Your task to perform on an android device: Go to Wikipedia Image 0: 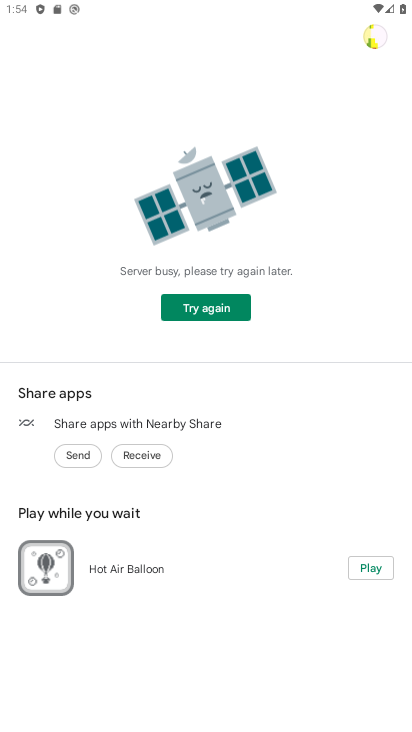
Step 0: press home button
Your task to perform on an android device: Go to Wikipedia Image 1: 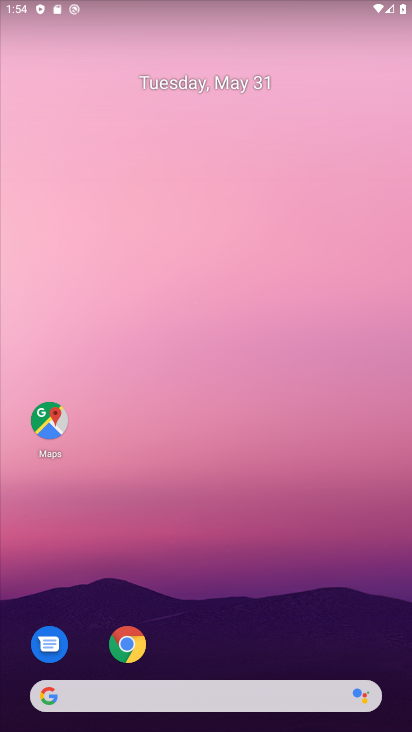
Step 1: click (131, 639)
Your task to perform on an android device: Go to Wikipedia Image 2: 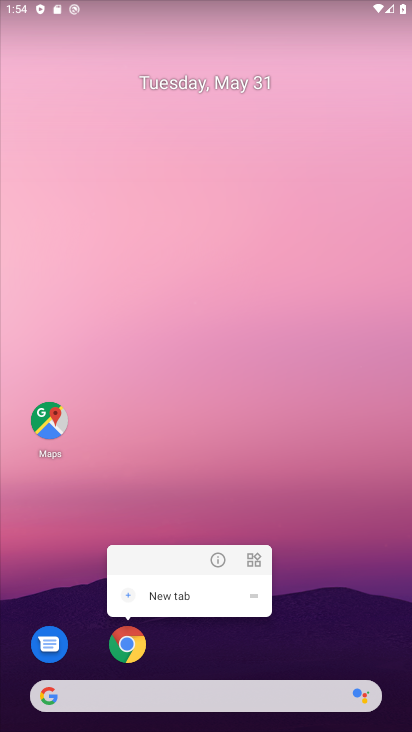
Step 2: click (131, 639)
Your task to perform on an android device: Go to Wikipedia Image 3: 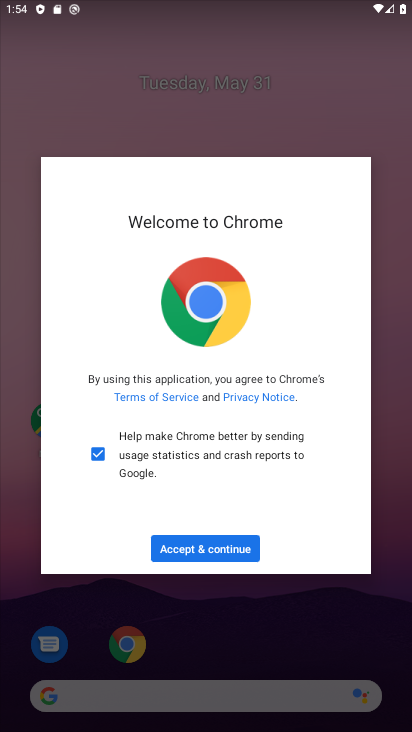
Step 3: click (206, 550)
Your task to perform on an android device: Go to Wikipedia Image 4: 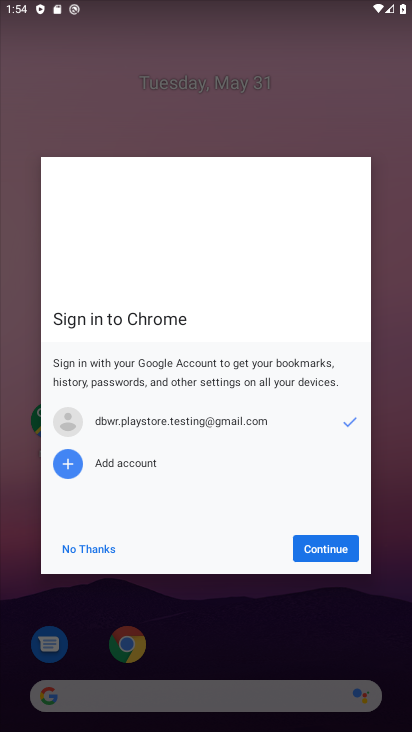
Step 4: click (332, 548)
Your task to perform on an android device: Go to Wikipedia Image 5: 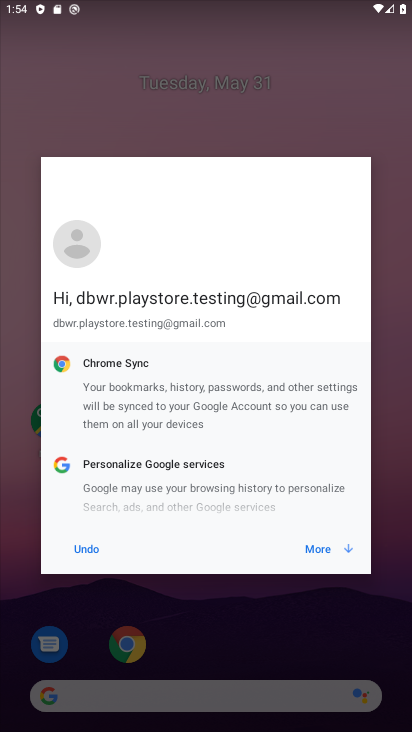
Step 5: click (332, 548)
Your task to perform on an android device: Go to Wikipedia Image 6: 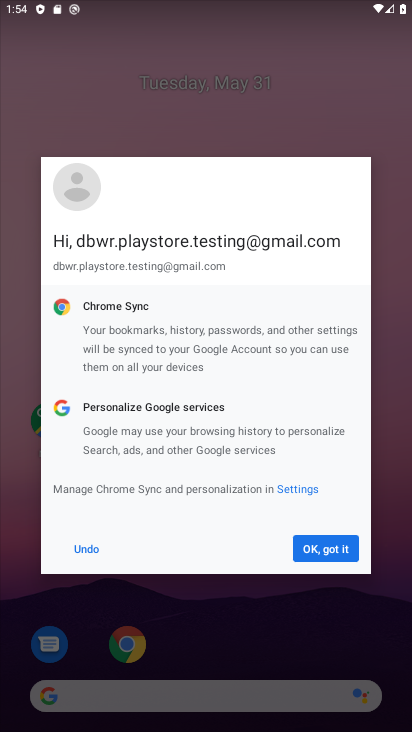
Step 6: click (332, 554)
Your task to perform on an android device: Go to Wikipedia Image 7: 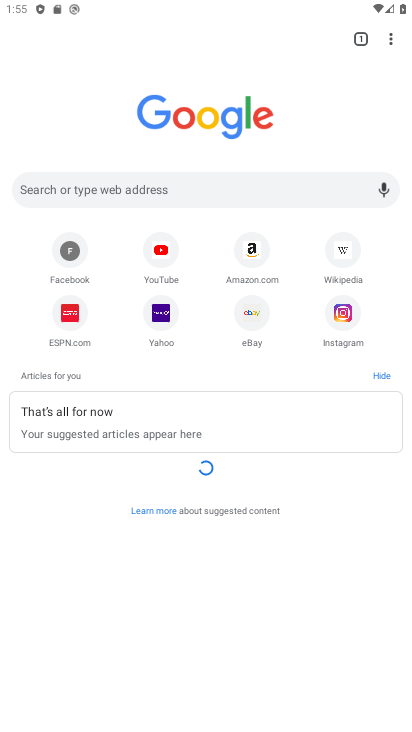
Step 7: click (345, 257)
Your task to perform on an android device: Go to Wikipedia Image 8: 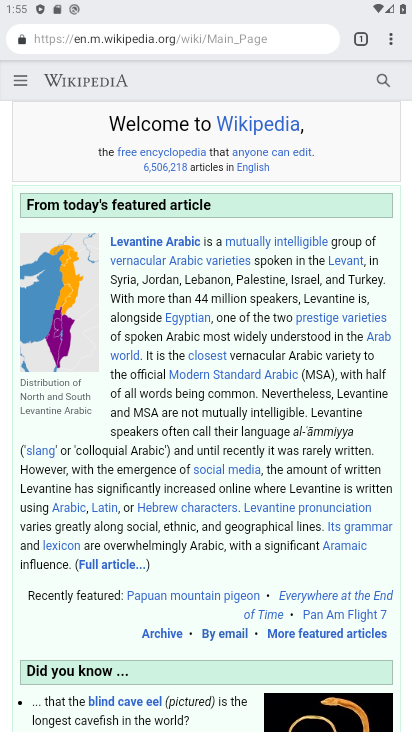
Step 8: task complete